Your task to perform on an android device: remove spam from my inbox in the gmail app Image 0: 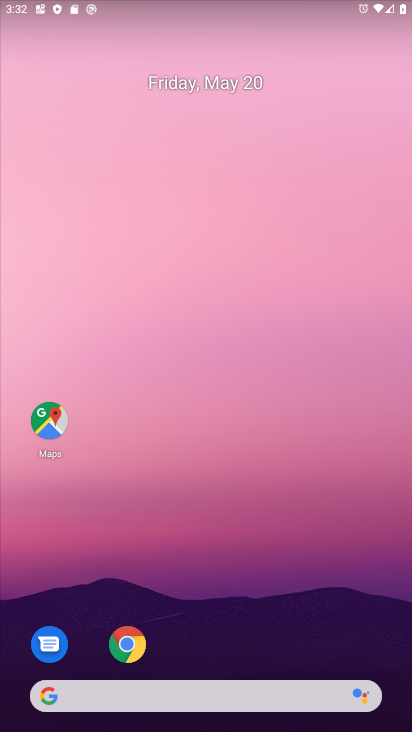
Step 0: drag from (292, 624) to (298, 197)
Your task to perform on an android device: remove spam from my inbox in the gmail app Image 1: 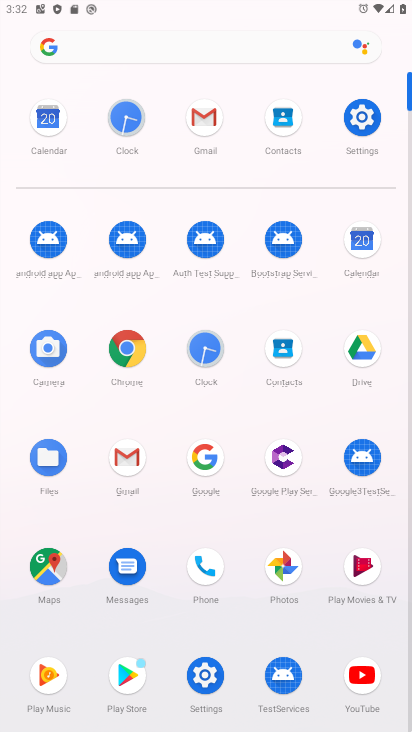
Step 1: click (197, 224)
Your task to perform on an android device: remove spam from my inbox in the gmail app Image 2: 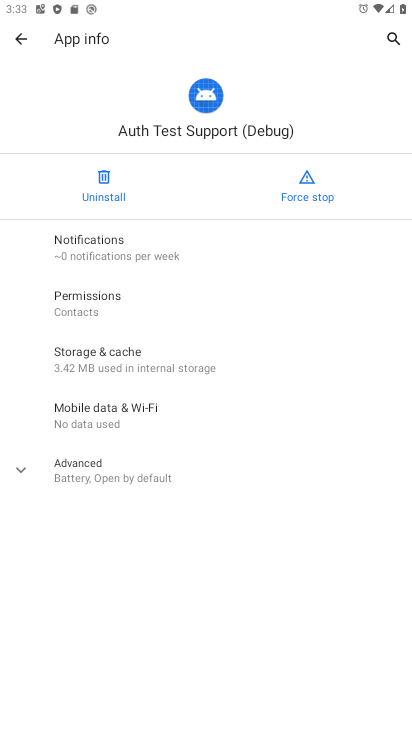
Step 2: press home button
Your task to perform on an android device: remove spam from my inbox in the gmail app Image 3: 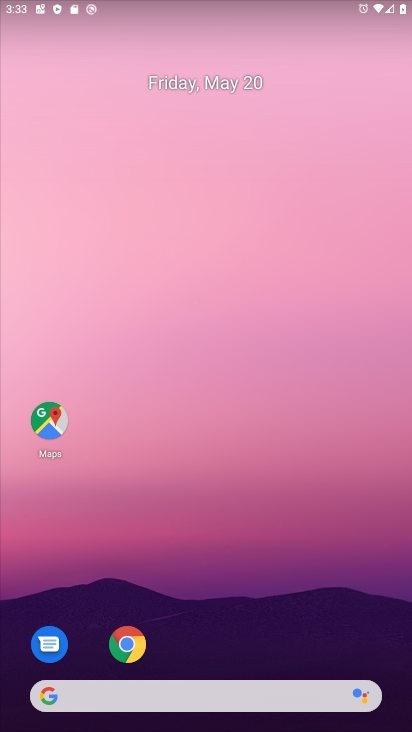
Step 3: drag from (324, 591) to (323, 16)
Your task to perform on an android device: remove spam from my inbox in the gmail app Image 4: 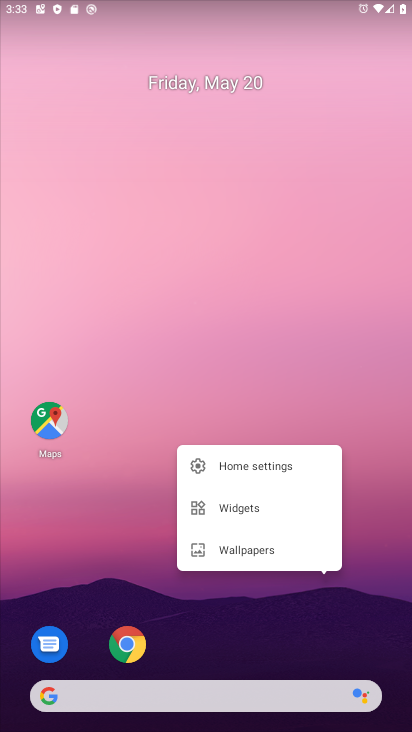
Step 4: click (227, 243)
Your task to perform on an android device: remove spam from my inbox in the gmail app Image 5: 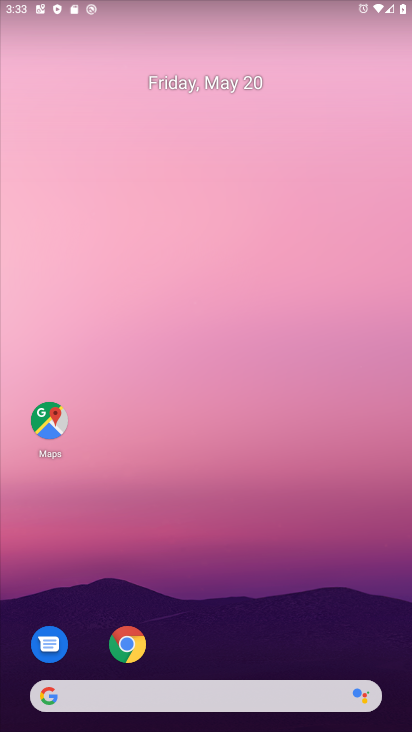
Step 5: drag from (215, 545) to (231, 96)
Your task to perform on an android device: remove spam from my inbox in the gmail app Image 6: 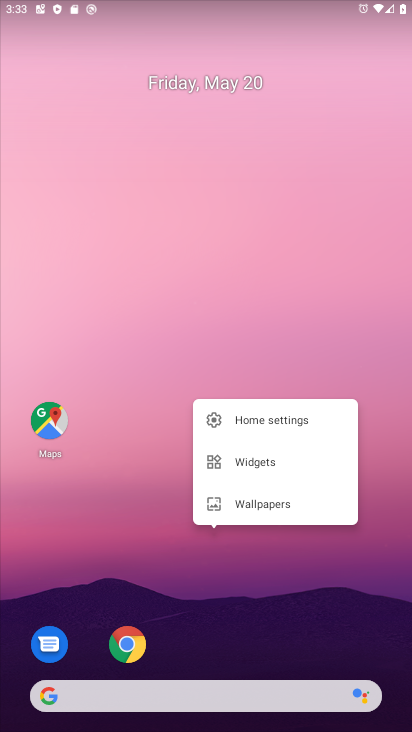
Step 6: click (188, 279)
Your task to perform on an android device: remove spam from my inbox in the gmail app Image 7: 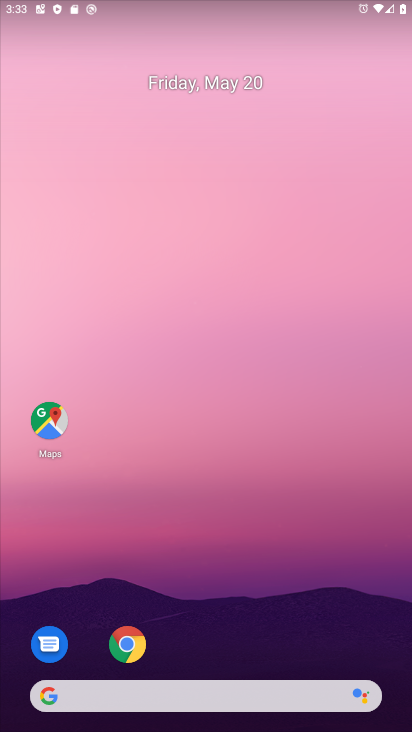
Step 7: drag from (227, 590) to (190, 19)
Your task to perform on an android device: remove spam from my inbox in the gmail app Image 8: 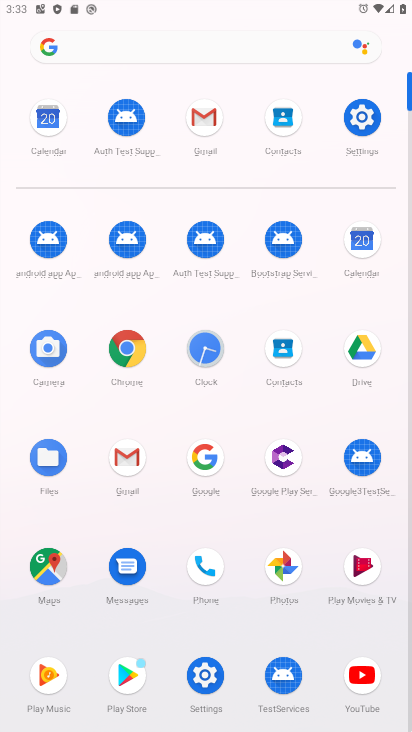
Step 8: click (196, 123)
Your task to perform on an android device: remove spam from my inbox in the gmail app Image 9: 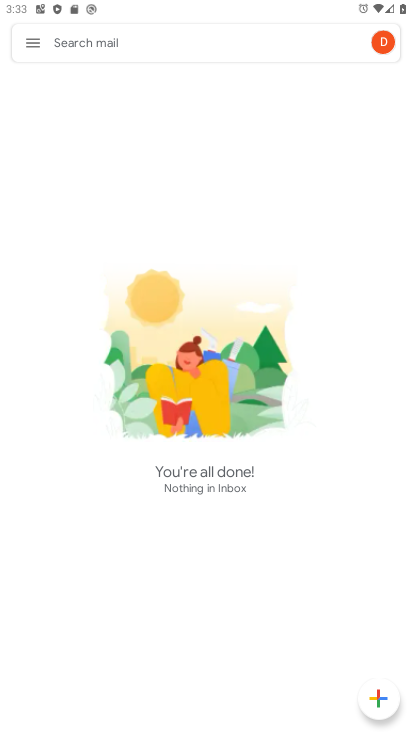
Step 9: click (24, 46)
Your task to perform on an android device: remove spam from my inbox in the gmail app Image 10: 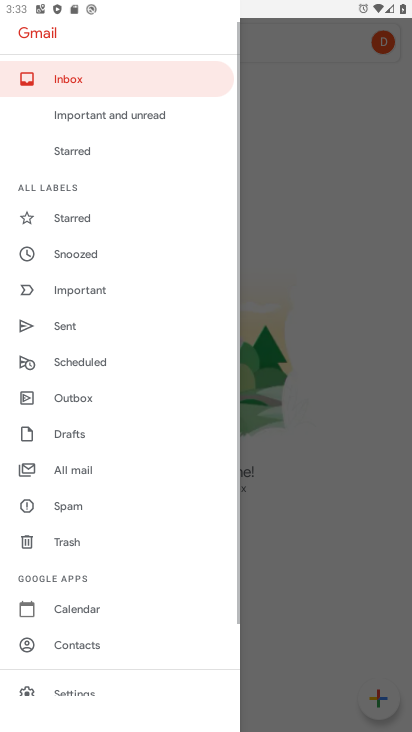
Step 10: click (150, 469)
Your task to perform on an android device: remove spam from my inbox in the gmail app Image 11: 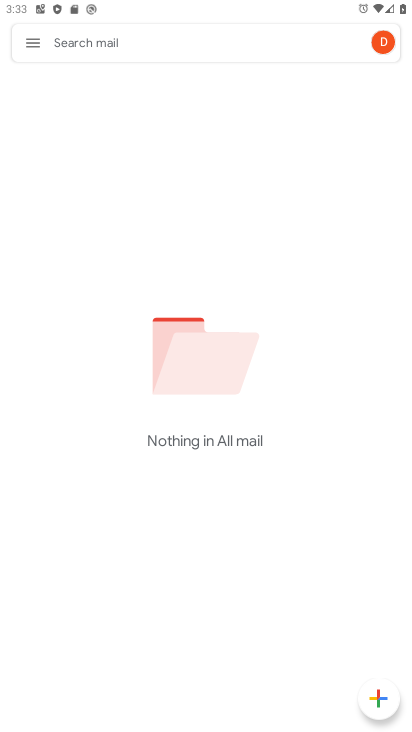
Step 11: task complete